Your task to perform on an android device: open a new tab in the chrome app Image 0: 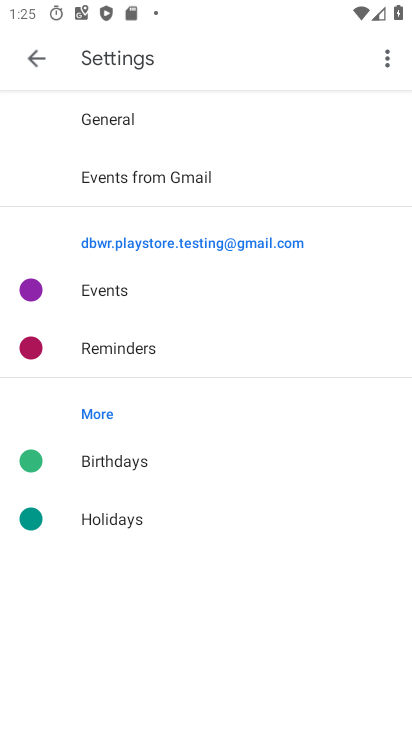
Step 0: press home button
Your task to perform on an android device: open a new tab in the chrome app Image 1: 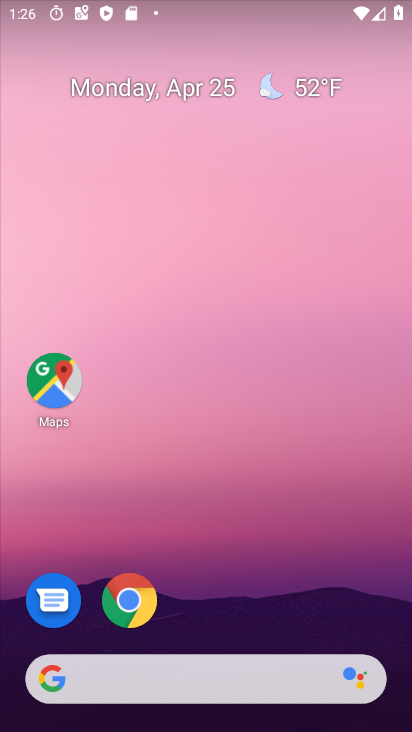
Step 1: drag from (142, 679) to (268, 152)
Your task to perform on an android device: open a new tab in the chrome app Image 2: 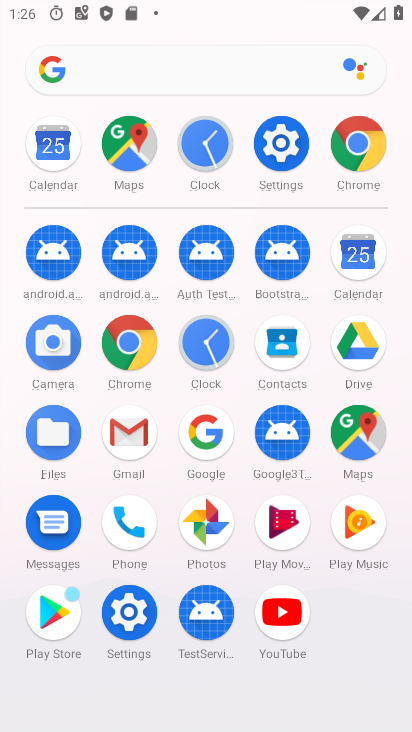
Step 2: click (352, 156)
Your task to perform on an android device: open a new tab in the chrome app Image 3: 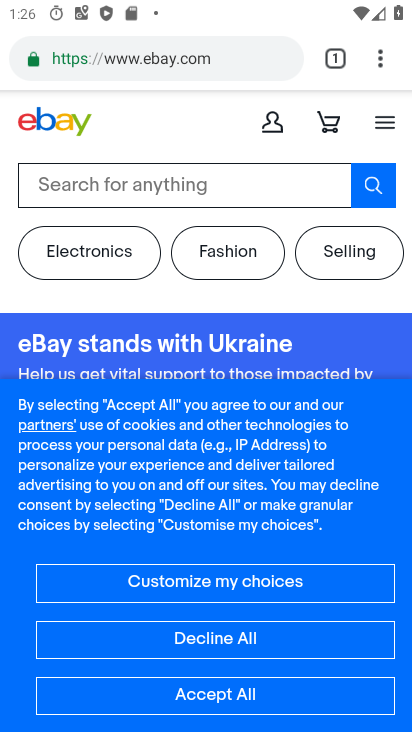
Step 3: drag from (381, 60) to (170, 113)
Your task to perform on an android device: open a new tab in the chrome app Image 4: 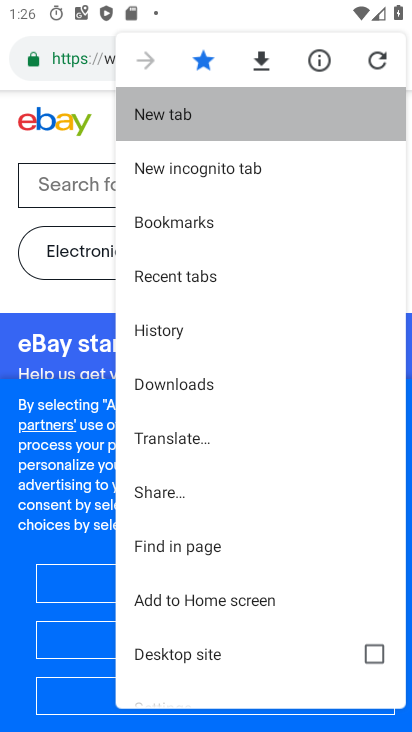
Step 4: click (170, 113)
Your task to perform on an android device: open a new tab in the chrome app Image 5: 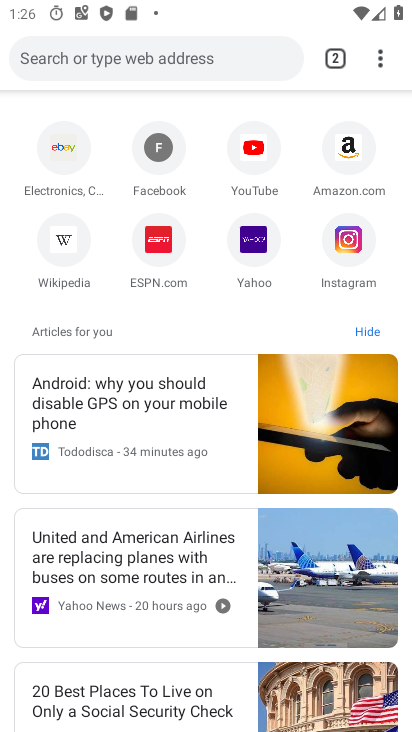
Step 5: task complete